Your task to perform on an android device: see sites visited before in the chrome app Image 0: 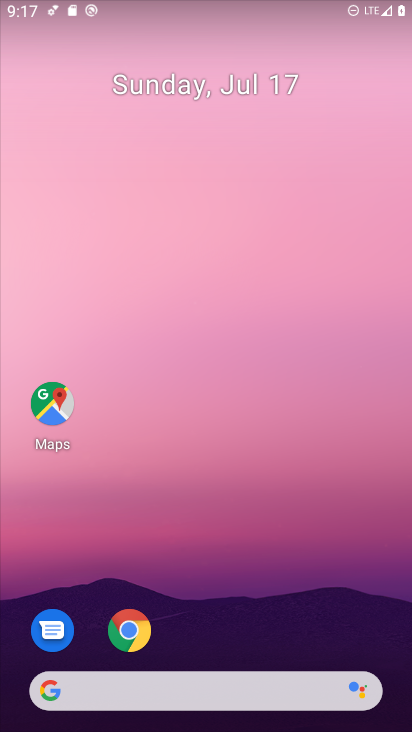
Step 0: drag from (241, 635) to (243, 197)
Your task to perform on an android device: see sites visited before in the chrome app Image 1: 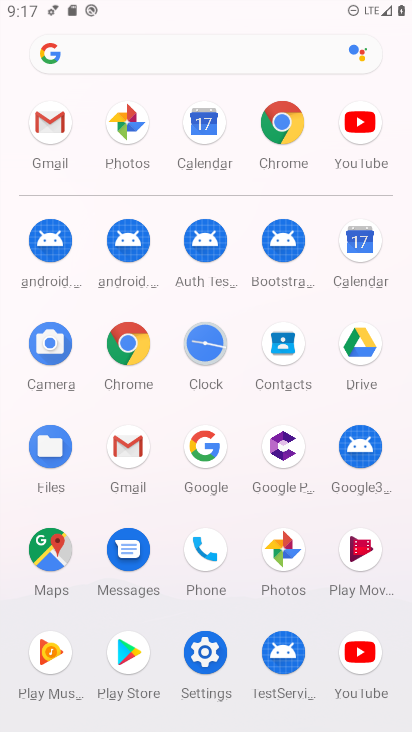
Step 1: click (288, 116)
Your task to perform on an android device: see sites visited before in the chrome app Image 2: 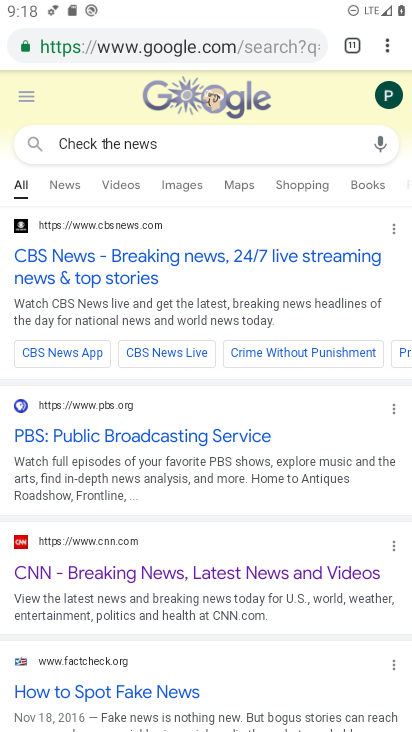
Step 2: click (394, 32)
Your task to perform on an android device: see sites visited before in the chrome app Image 3: 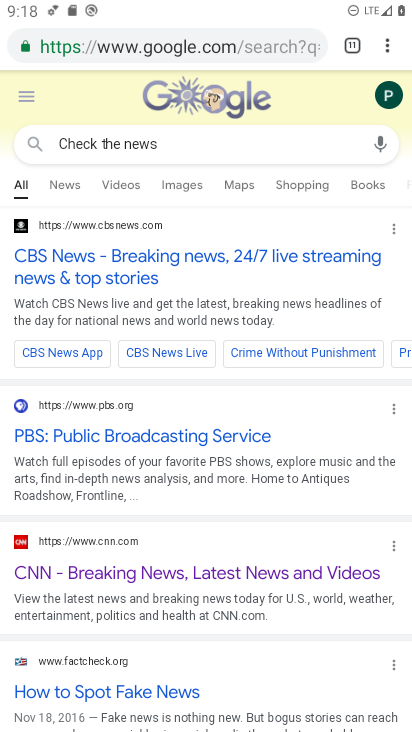
Step 3: click (387, 46)
Your task to perform on an android device: see sites visited before in the chrome app Image 4: 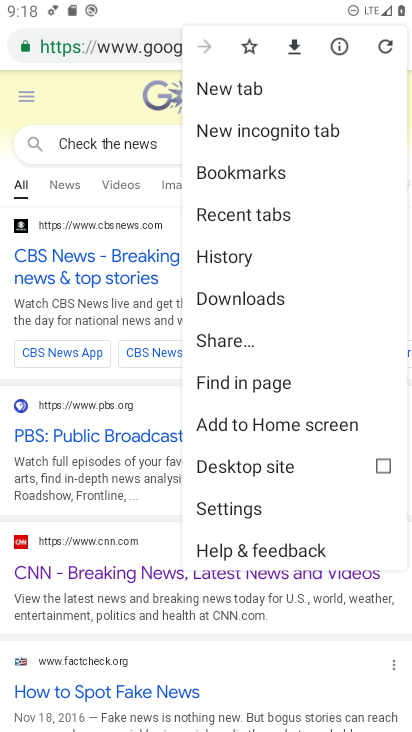
Step 4: click (257, 176)
Your task to perform on an android device: see sites visited before in the chrome app Image 5: 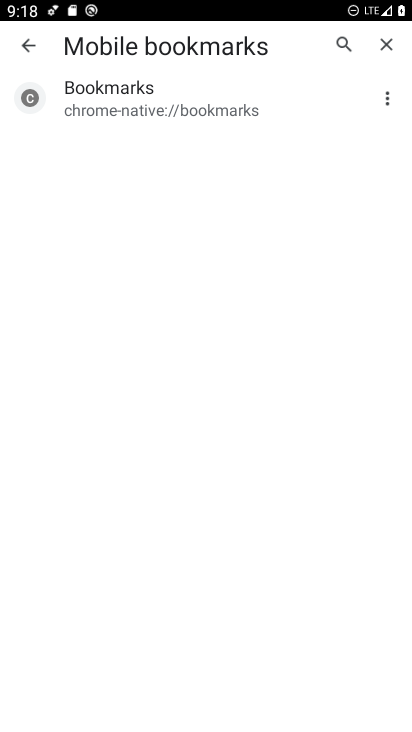
Step 5: click (32, 41)
Your task to perform on an android device: see sites visited before in the chrome app Image 6: 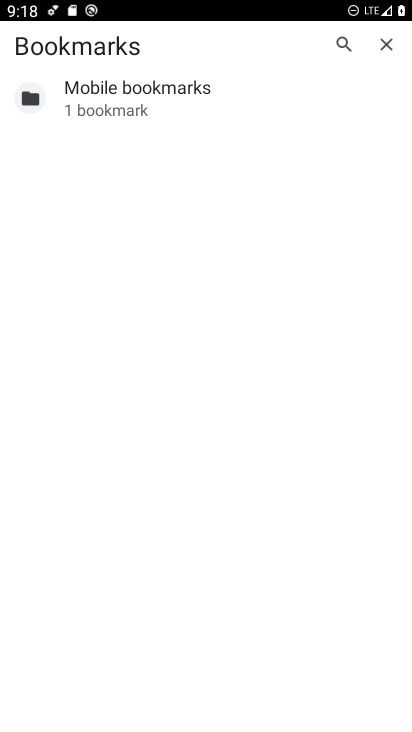
Step 6: click (390, 35)
Your task to perform on an android device: see sites visited before in the chrome app Image 7: 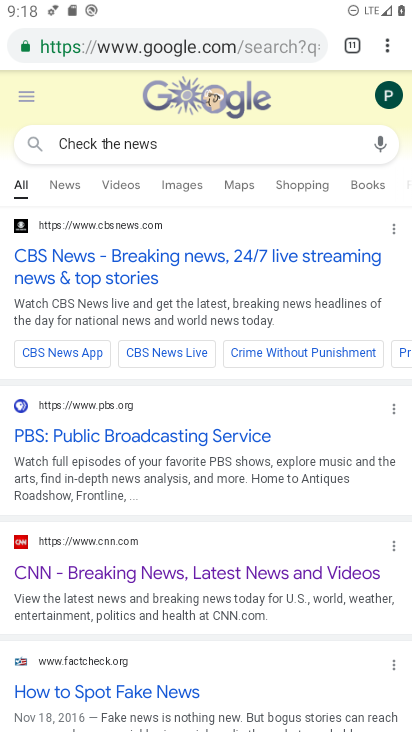
Step 7: click (382, 44)
Your task to perform on an android device: see sites visited before in the chrome app Image 8: 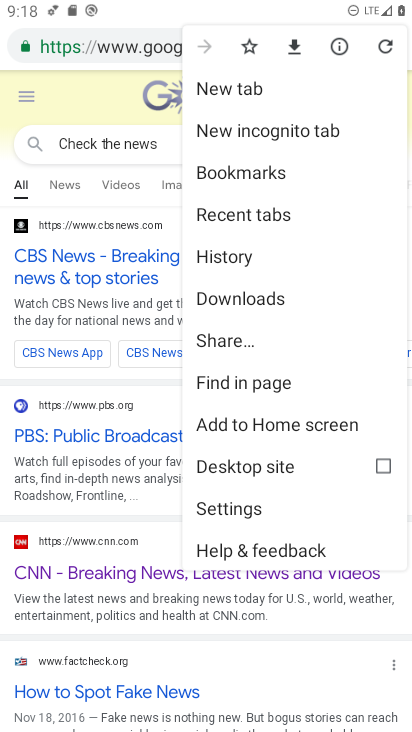
Step 8: click (229, 254)
Your task to perform on an android device: see sites visited before in the chrome app Image 9: 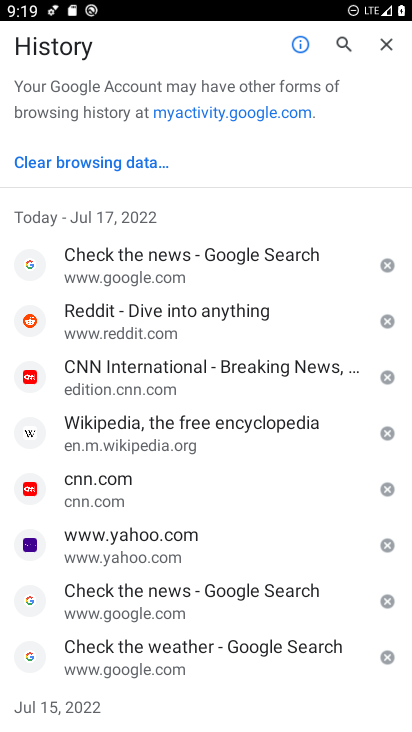
Step 9: task complete